Your task to perform on an android device: Open maps Image 0: 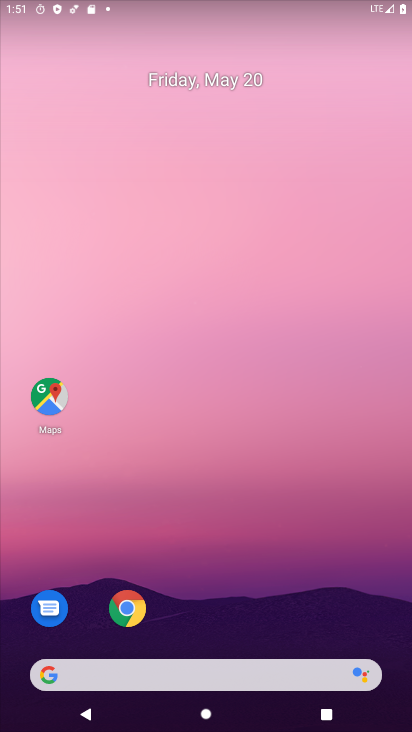
Step 0: click (51, 399)
Your task to perform on an android device: Open maps Image 1: 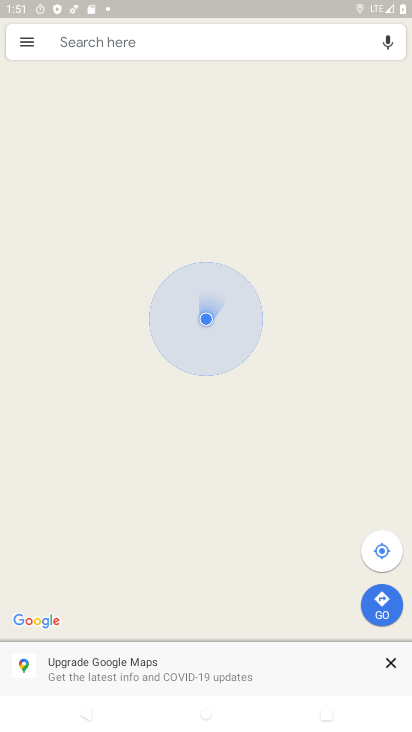
Step 1: task complete